Your task to perform on an android device: When is my next appointment? Image 0: 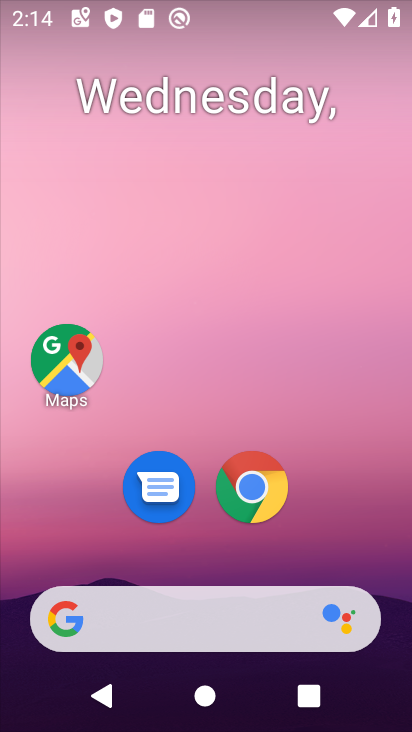
Step 0: drag from (405, 331) to (407, 48)
Your task to perform on an android device: When is my next appointment? Image 1: 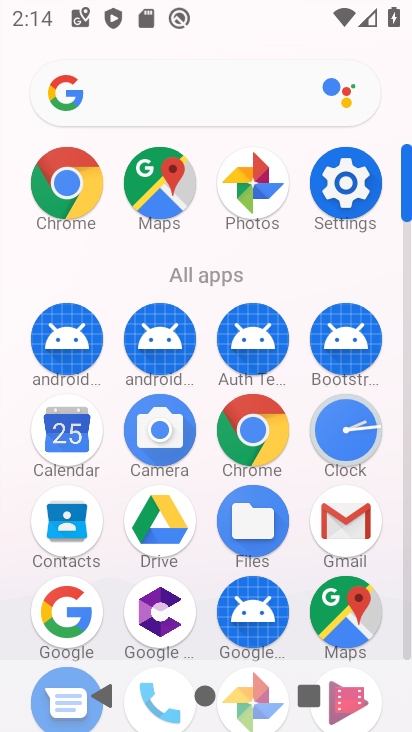
Step 1: click (65, 458)
Your task to perform on an android device: When is my next appointment? Image 2: 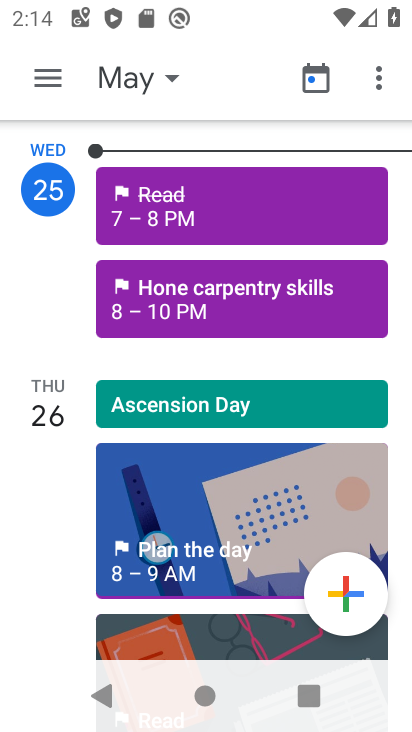
Step 2: click (146, 74)
Your task to perform on an android device: When is my next appointment? Image 3: 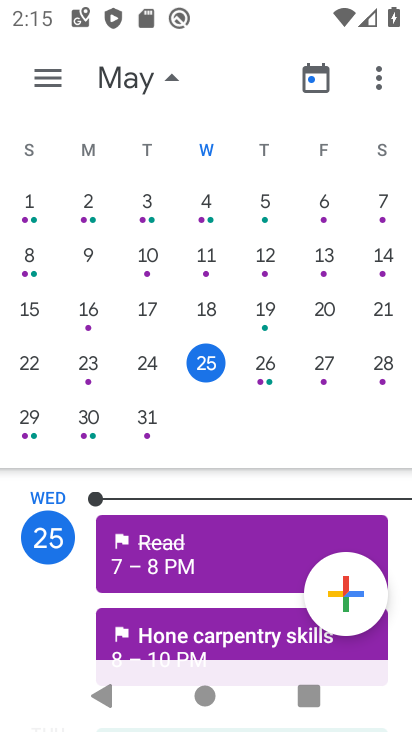
Step 3: click (252, 386)
Your task to perform on an android device: When is my next appointment? Image 4: 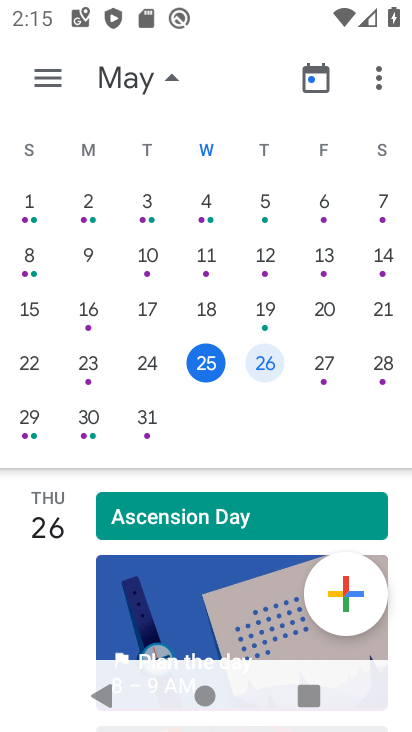
Step 4: task complete